Your task to perform on an android device: Open the camera Image 0: 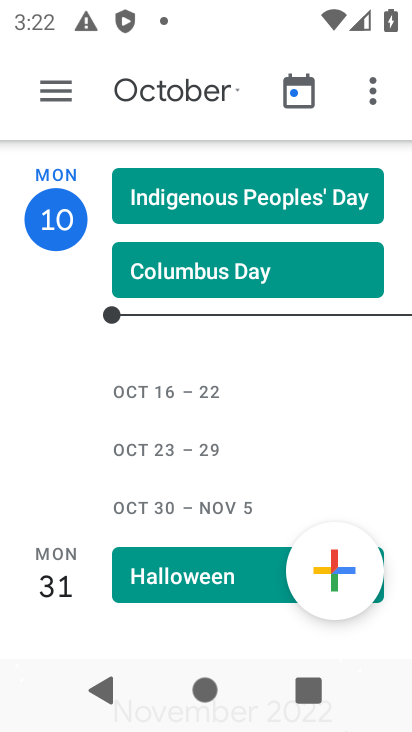
Step 0: press home button
Your task to perform on an android device: Open the camera Image 1: 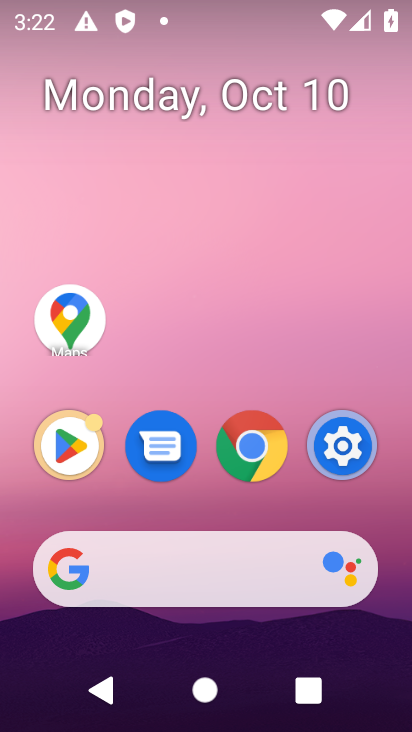
Step 1: drag from (201, 482) to (232, 254)
Your task to perform on an android device: Open the camera Image 2: 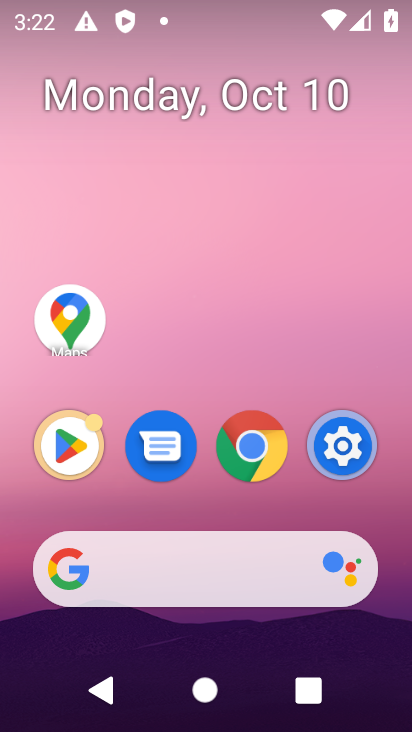
Step 2: drag from (204, 485) to (205, 158)
Your task to perform on an android device: Open the camera Image 3: 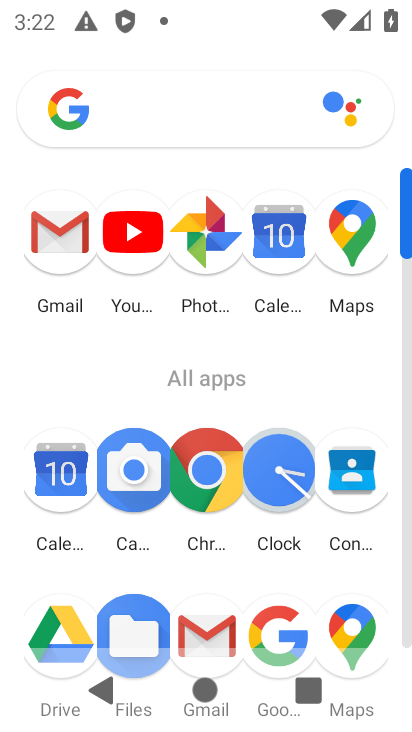
Step 3: click (132, 449)
Your task to perform on an android device: Open the camera Image 4: 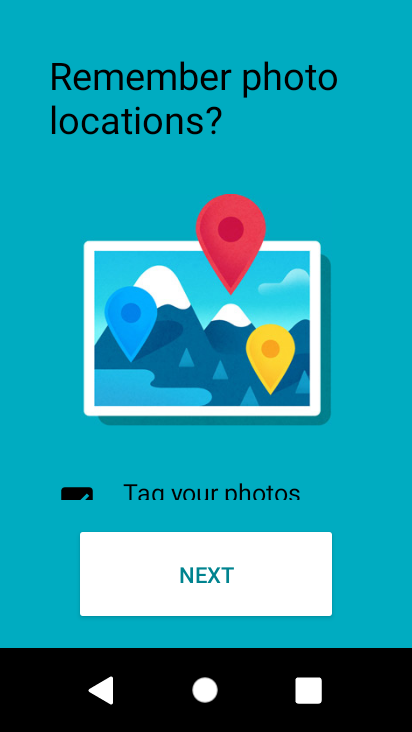
Step 4: click (211, 565)
Your task to perform on an android device: Open the camera Image 5: 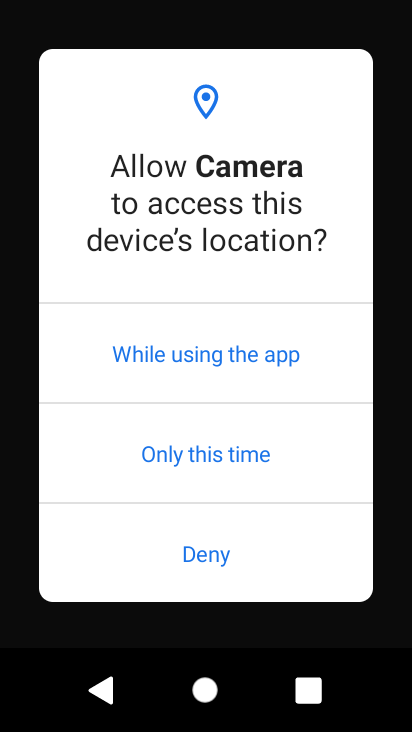
Step 5: click (259, 353)
Your task to perform on an android device: Open the camera Image 6: 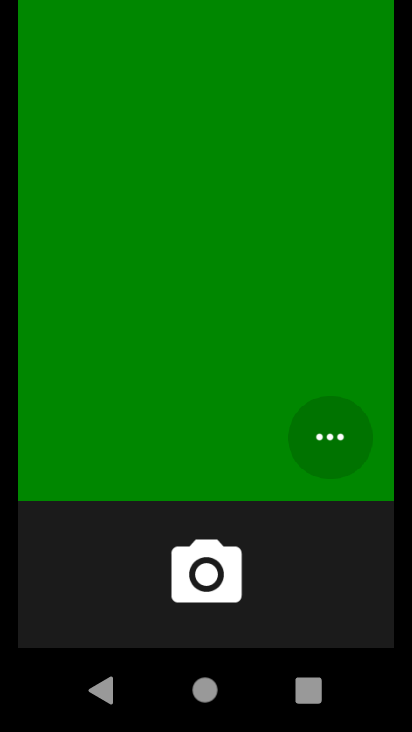
Step 6: task complete